Your task to perform on an android device: see creations saved in the google photos Image 0: 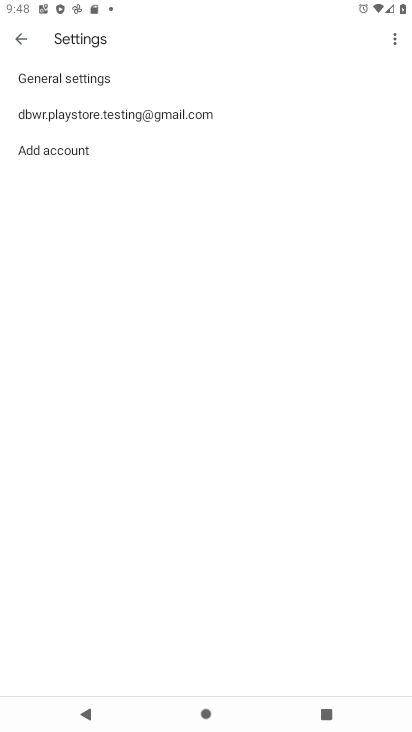
Step 0: press back button
Your task to perform on an android device: see creations saved in the google photos Image 1: 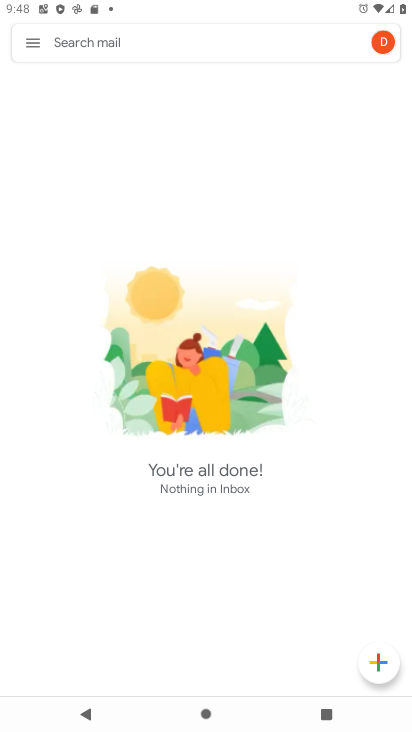
Step 1: press home button
Your task to perform on an android device: see creations saved in the google photos Image 2: 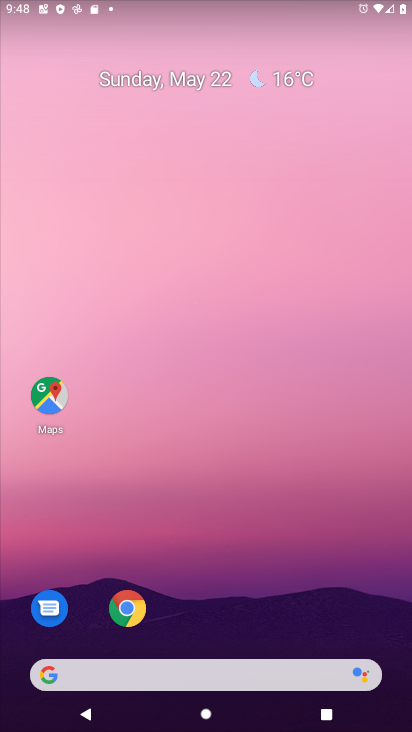
Step 2: drag from (219, 556) to (187, 35)
Your task to perform on an android device: see creations saved in the google photos Image 3: 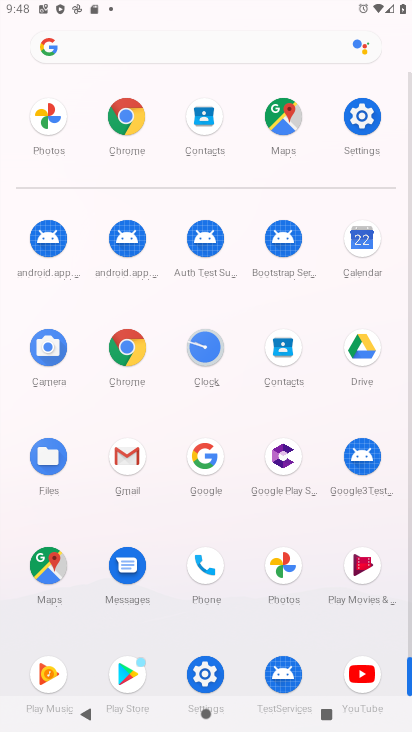
Step 3: click (283, 566)
Your task to perform on an android device: see creations saved in the google photos Image 4: 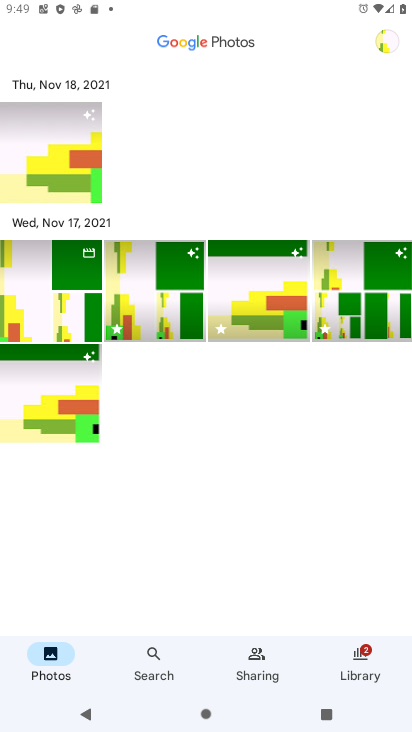
Step 4: task complete